Your task to perform on an android device: turn on location history Image 0: 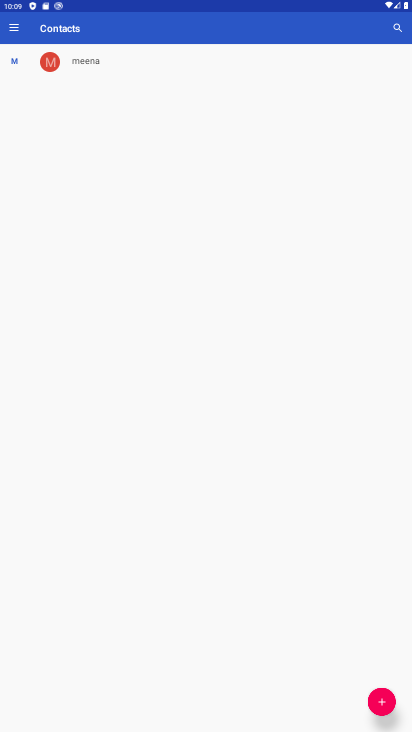
Step 0: press home button
Your task to perform on an android device: turn on location history Image 1: 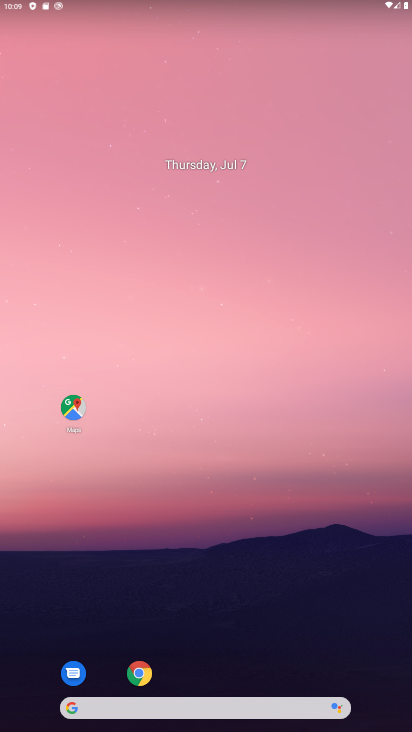
Step 1: drag from (220, 642) to (220, 19)
Your task to perform on an android device: turn on location history Image 2: 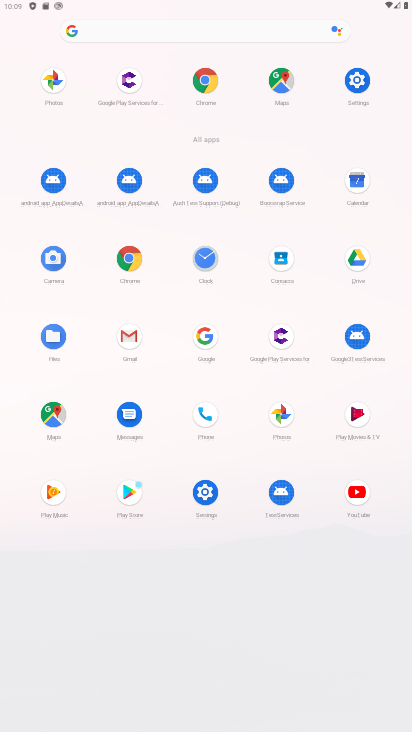
Step 2: click (366, 86)
Your task to perform on an android device: turn on location history Image 3: 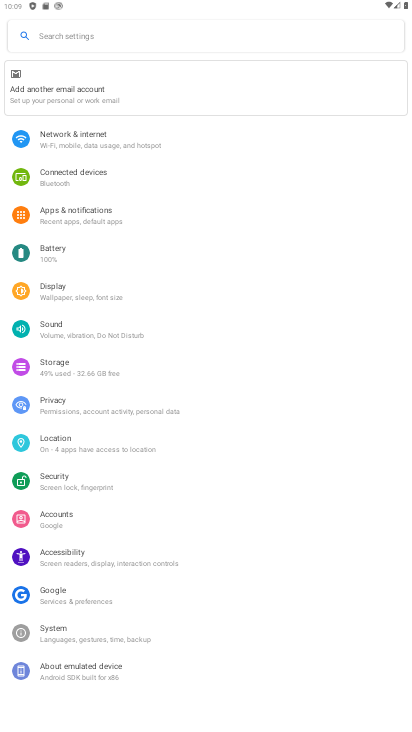
Step 3: click (80, 443)
Your task to perform on an android device: turn on location history Image 4: 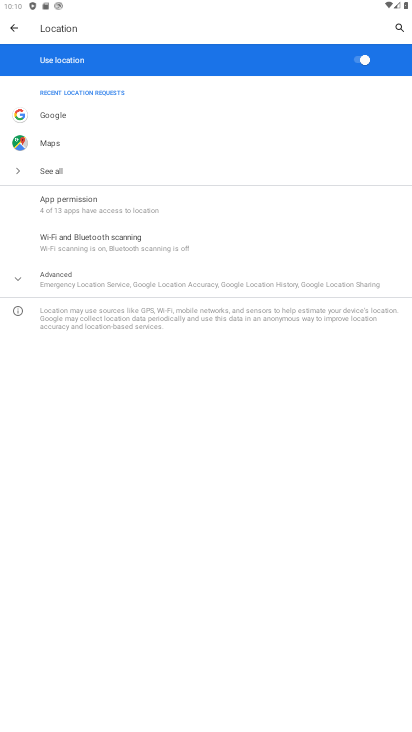
Step 4: click (55, 284)
Your task to perform on an android device: turn on location history Image 5: 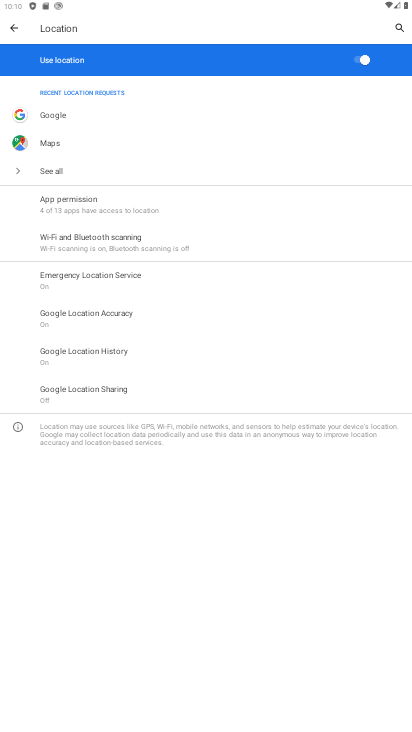
Step 5: click (115, 356)
Your task to perform on an android device: turn on location history Image 6: 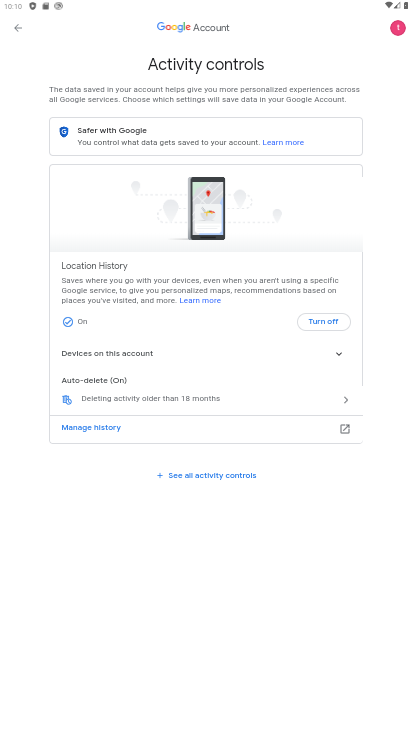
Step 6: task complete